Your task to perform on an android device: install app "PlayWell" Image 0: 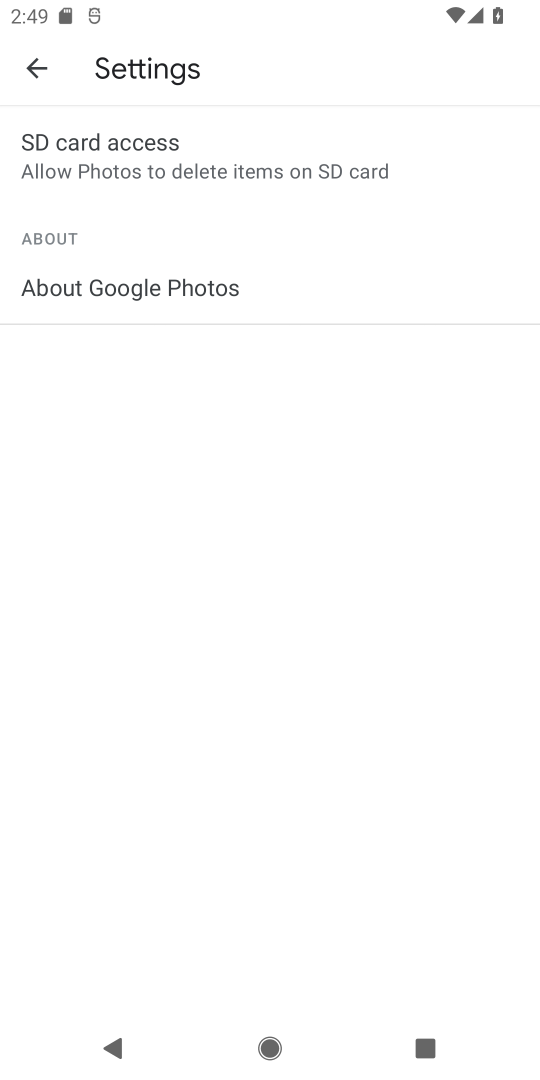
Step 0: press home button
Your task to perform on an android device: install app "PlayWell" Image 1: 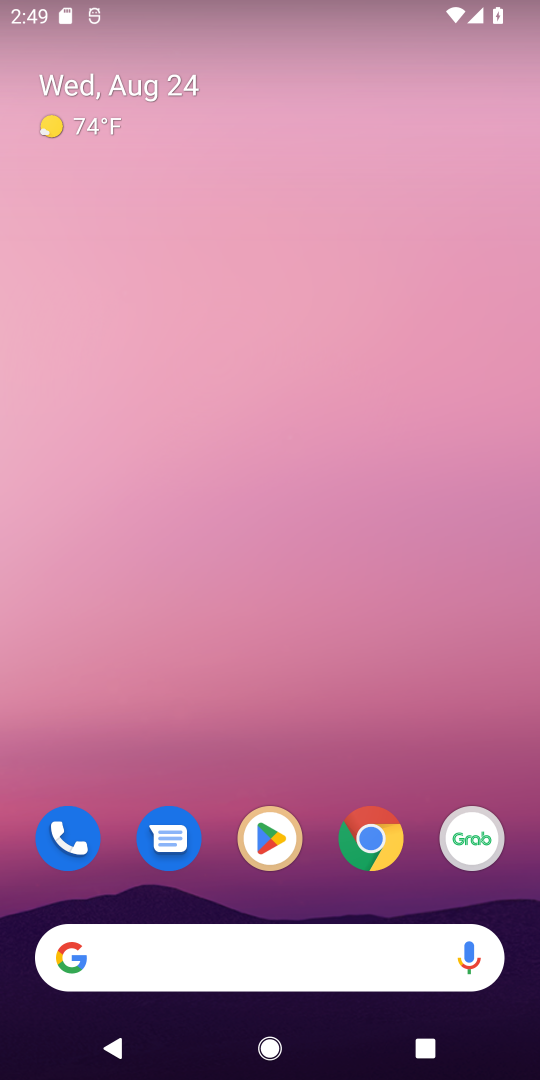
Step 1: click (278, 825)
Your task to perform on an android device: install app "PlayWell" Image 2: 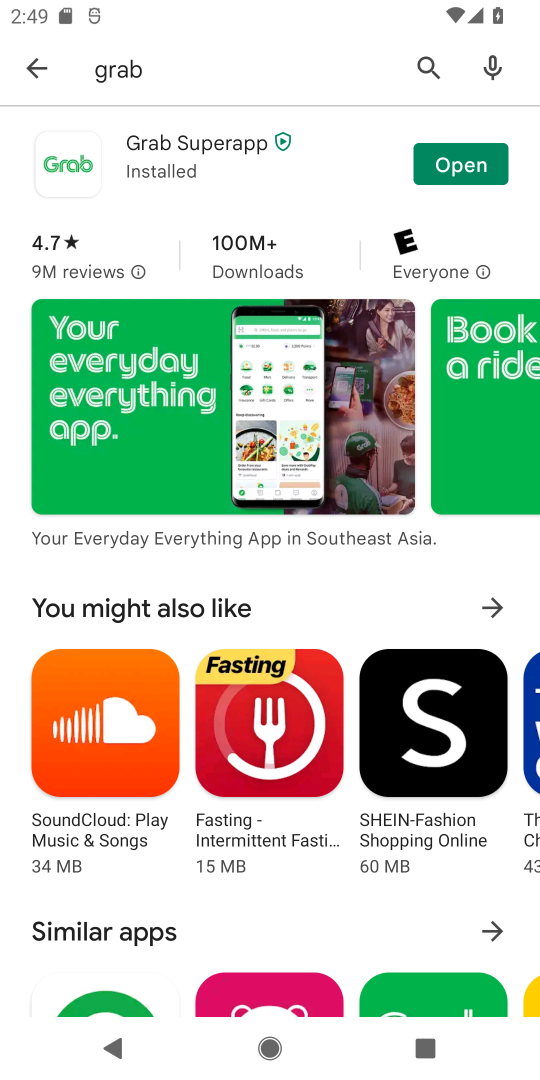
Step 2: click (48, 70)
Your task to perform on an android device: install app "PlayWell" Image 3: 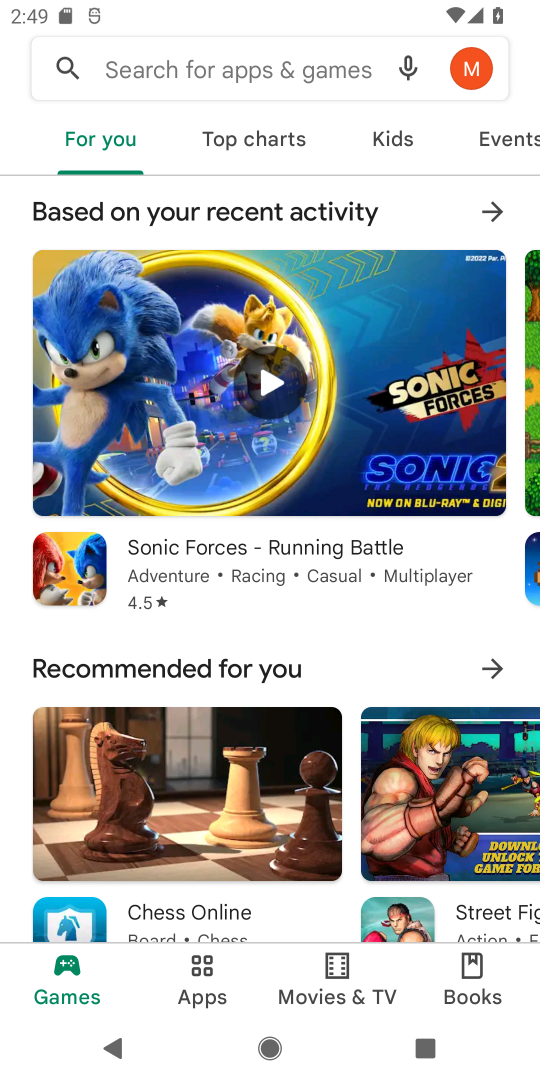
Step 3: click (327, 57)
Your task to perform on an android device: install app "PlayWell" Image 4: 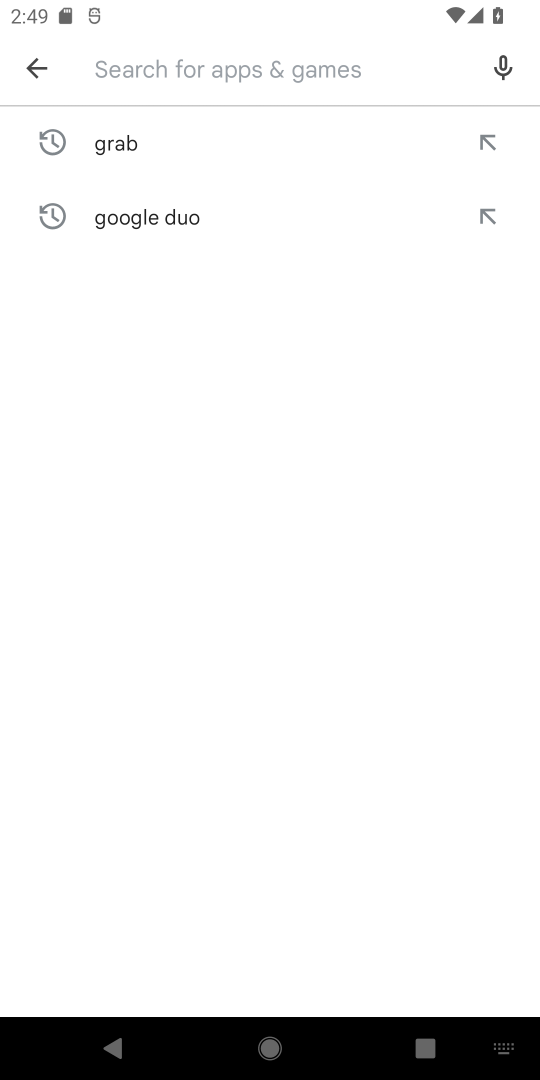
Step 4: type "PlayWell"
Your task to perform on an android device: install app "PlayWell" Image 5: 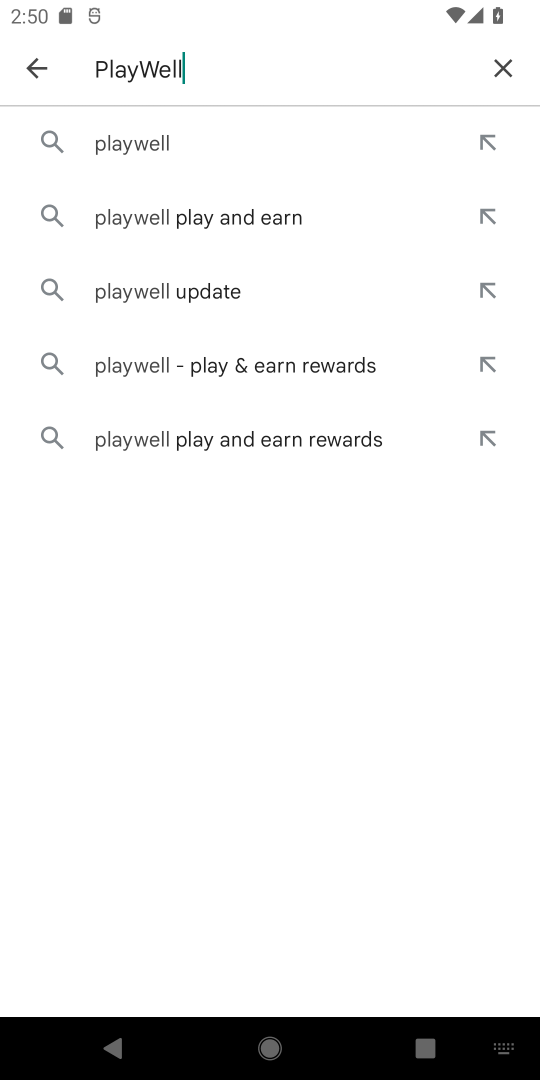
Step 5: click (124, 148)
Your task to perform on an android device: install app "PlayWell" Image 6: 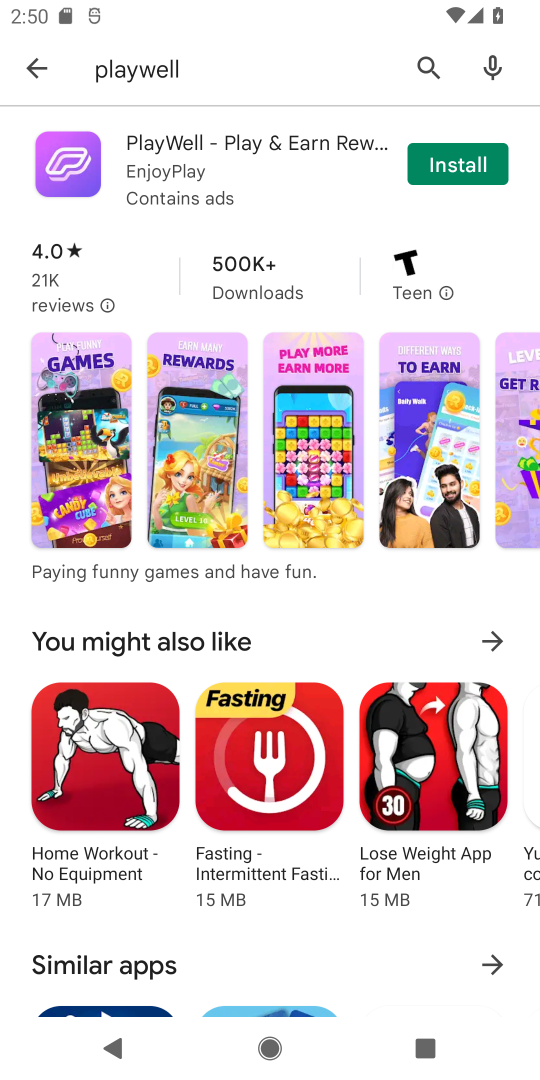
Step 6: click (477, 174)
Your task to perform on an android device: install app "PlayWell" Image 7: 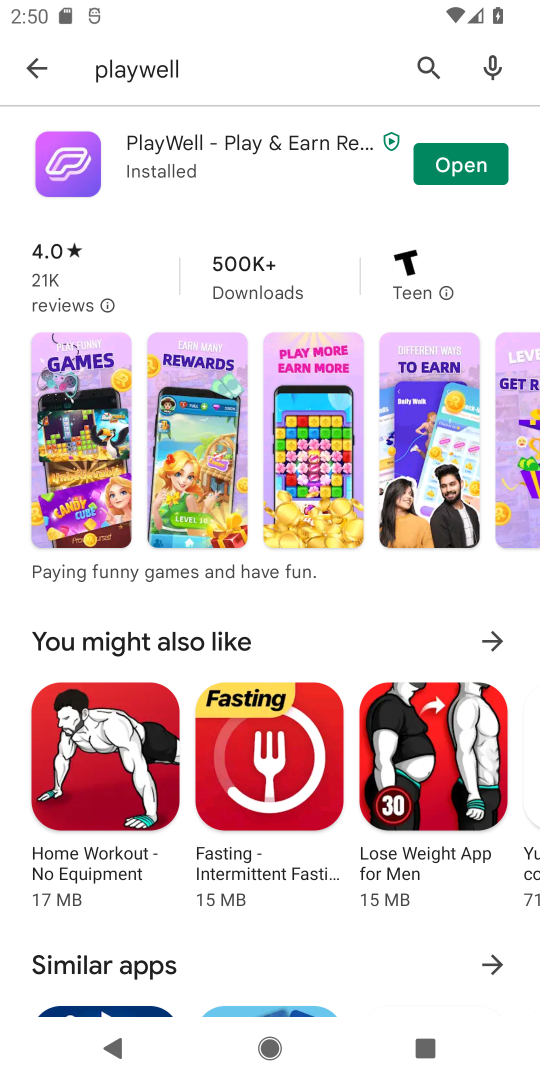
Step 7: click (477, 174)
Your task to perform on an android device: install app "PlayWell" Image 8: 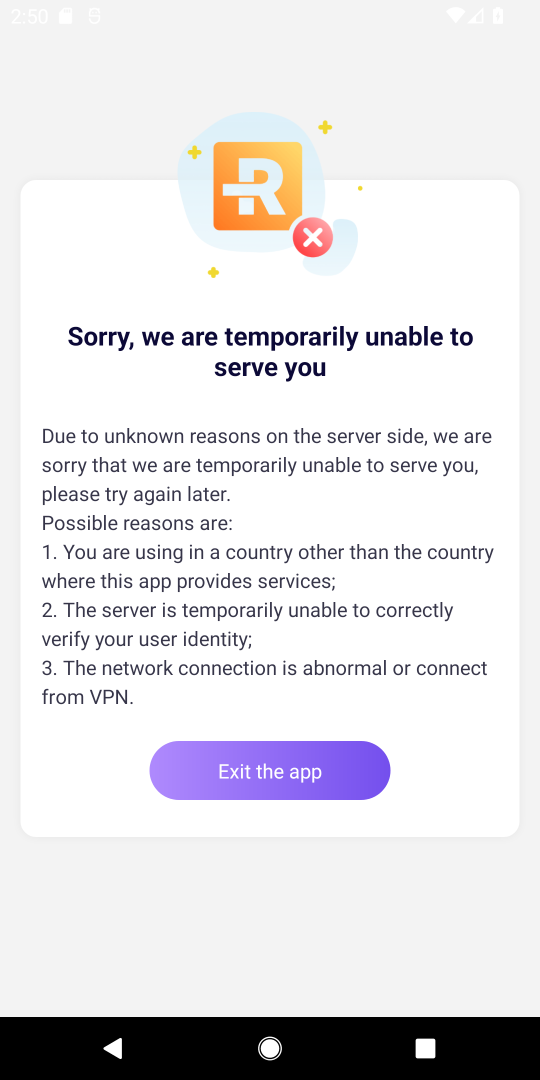
Step 8: task complete